Your task to perform on an android device: Open sound settings Image 0: 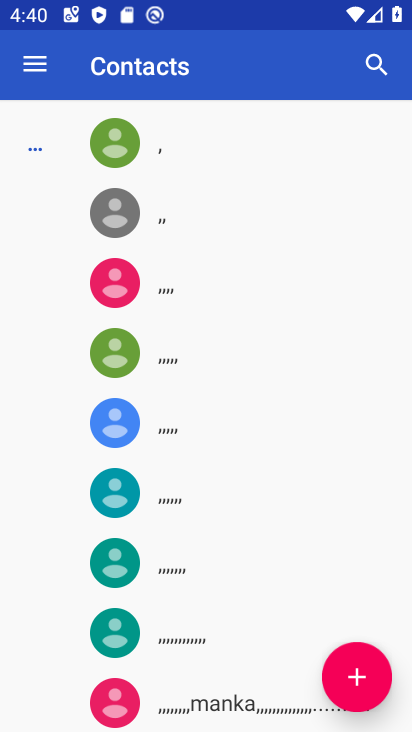
Step 0: press home button
Your task to perform on an android device: Open sound settings Image 1: 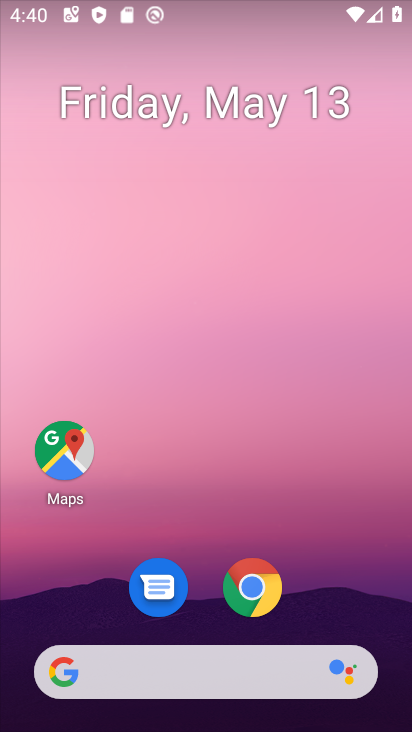
Step 1: drag from (266, 533) to (302, 81)
Your task to perform on an android device: Open sound settings Image 2: 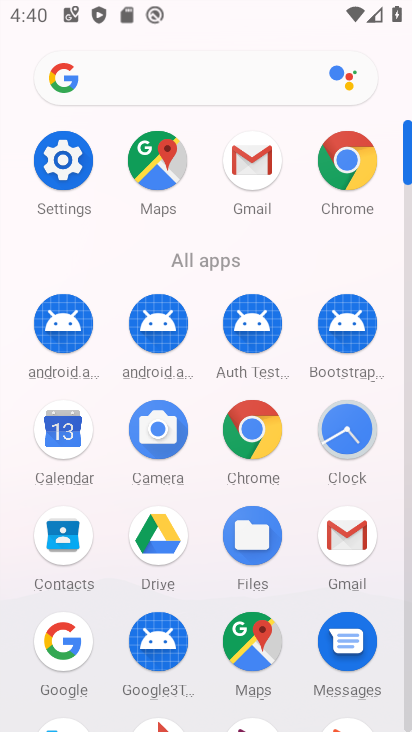
Step 2: click (75, 164)
Your task to perform on an android device: Open sound settings Image 3: 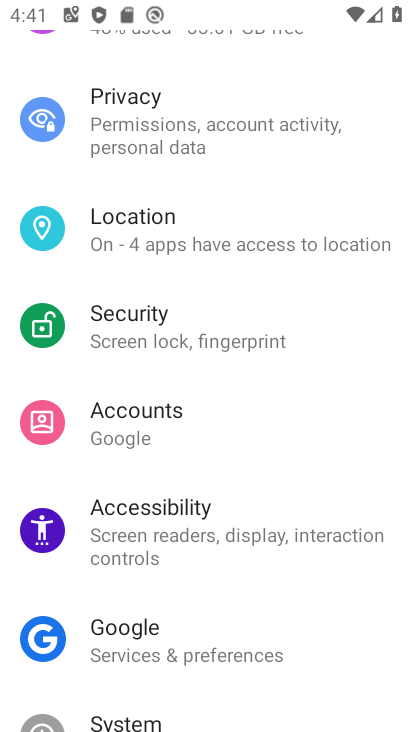
Step 3: drag from (228, 226) to (212, 682)
Your task to perform on an android device: Open sound settings Image 4: 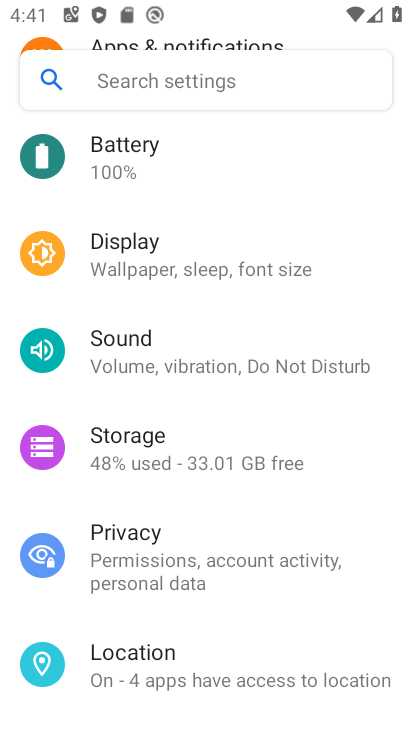
Step 4: click (132, 359)
Your task to perform on an android device: Open sound settings Image 5: 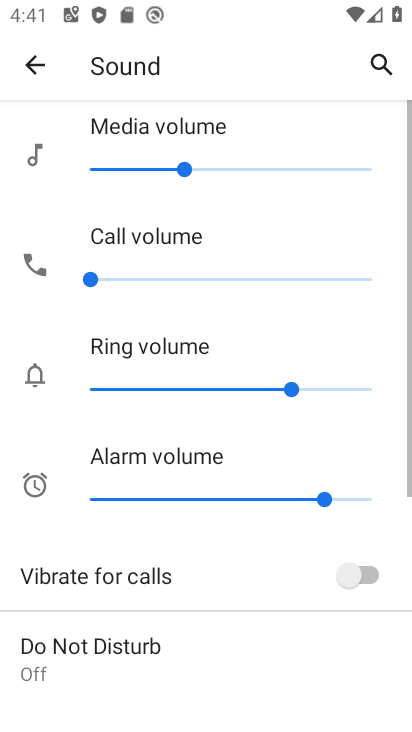
Step 5: task complete